Your task to perform on an android device: Open Google Image 0: 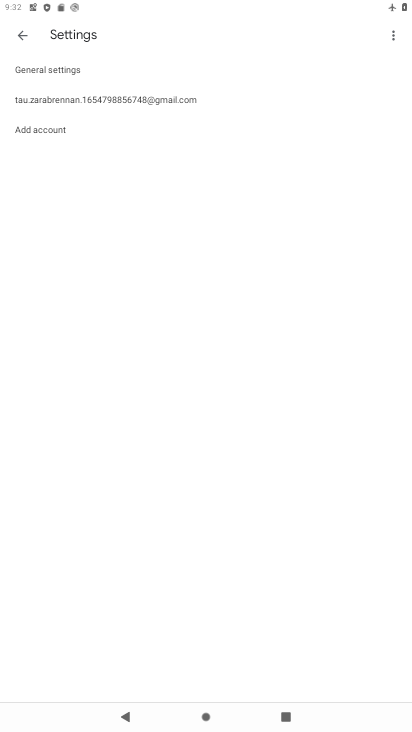
Step 0: press home button
Your task to perform on an android device: Open Google Image 1: 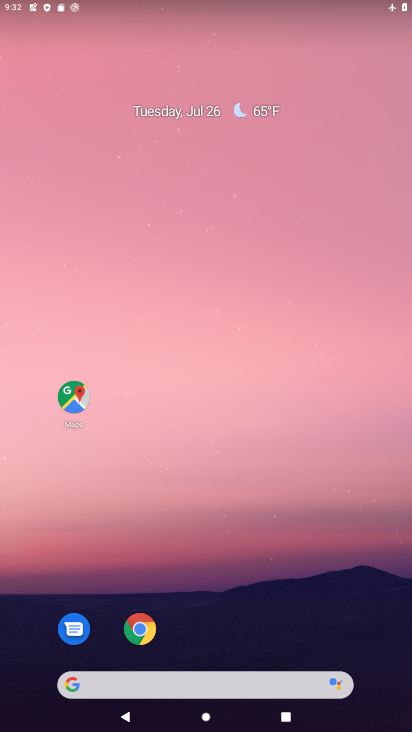
Step 1: drag from (200, 626) to (95, 60)
Your task to perform on an android device: Open Google Image 2: 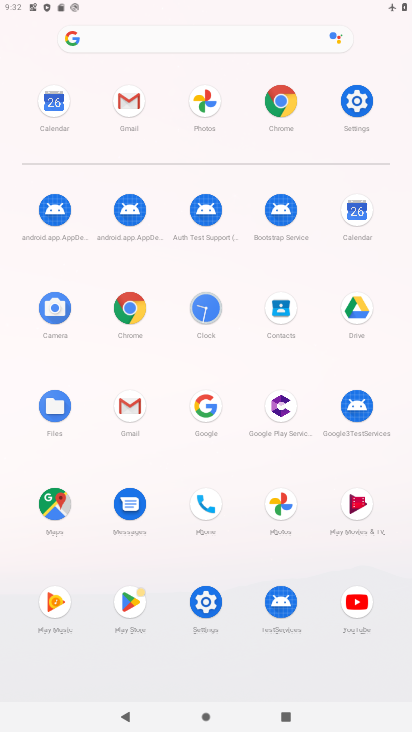
Step 2: click (209, 405)
Your task to perform on an android device: Open Google Image 3: 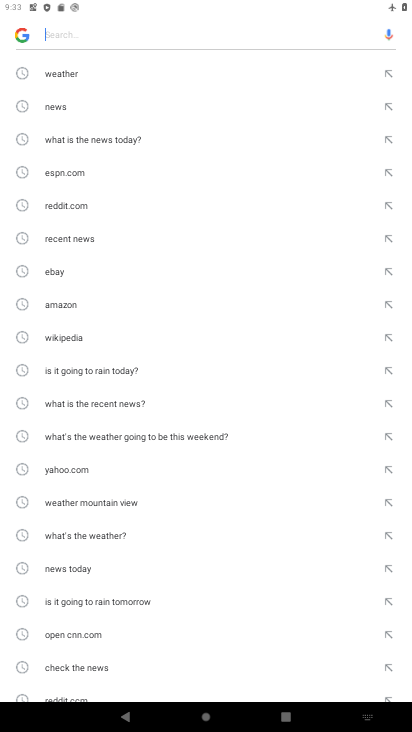
Step 3: task complete